Your task to perform on an android device: open a bookmark in the chrome app Image 0: 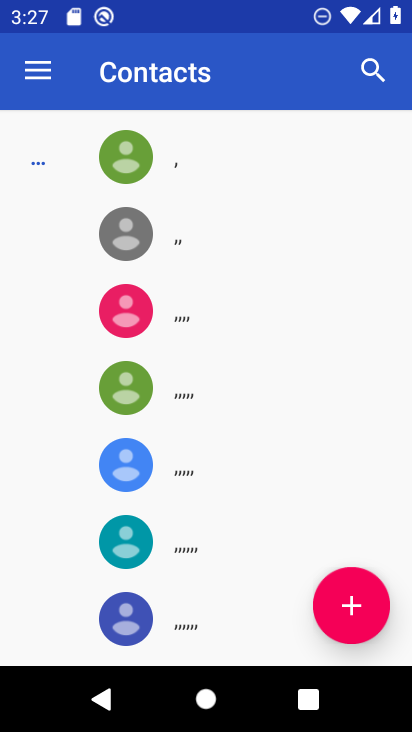
Step 0: press back button
Your task to perform on an android device: open a bookmark in the chrome app Image 1: 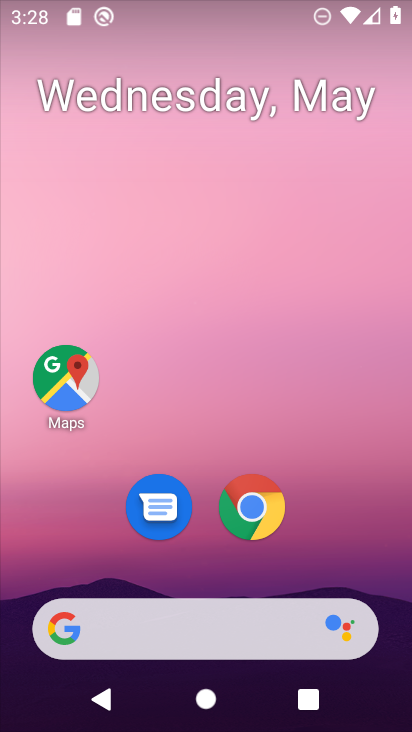
Step 1: click (264, 510)
Your task to perform on an android device: open a bookmark in the chrome app Image 2: 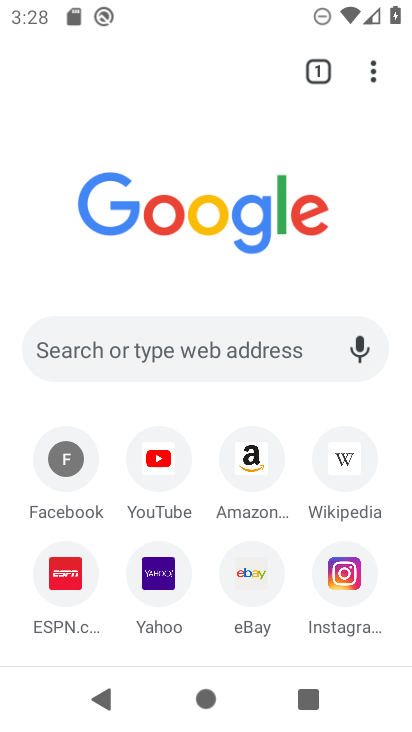
Step 2: task complete